Your task to perform on an android device: manage bookmarks in the chrome app Image 0: 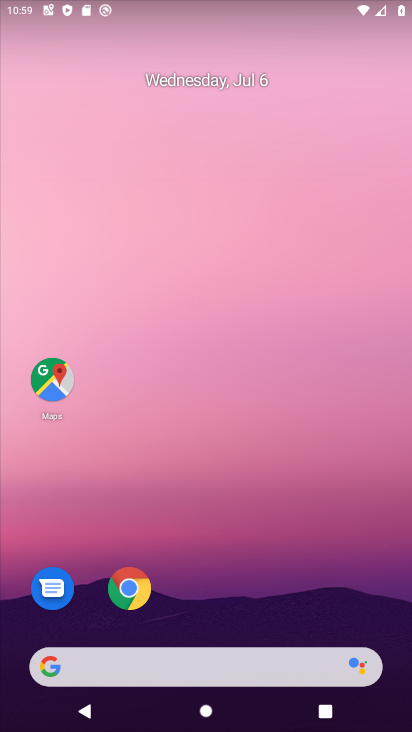
Step 0: drag from (264, 640) to (252, 351)
Your task to perform on an android device: manage bookmarks in the chrome app Image 1: 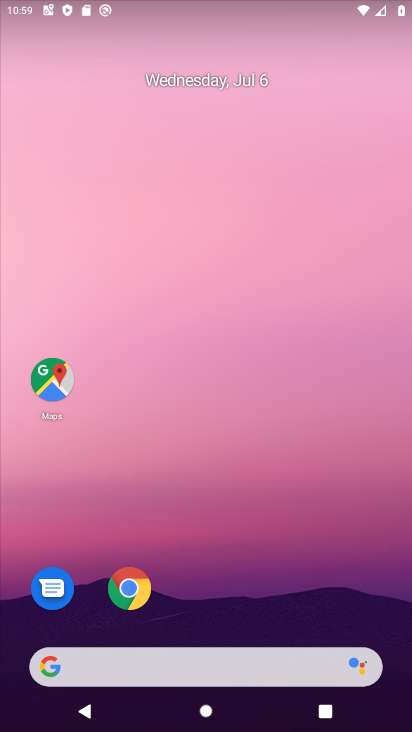
Step 1: drag from (208, 619) to (208, 359)
Your task to perform on an android device: manage bookmarks in the chrome app Image 2: 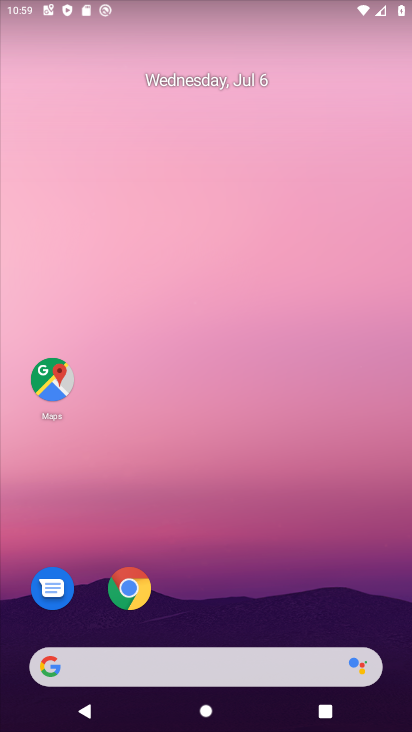
Step 2: drag from (203, 595) to (229, 187)
Your task to perform on an android device: manage bookmarks in the chrome app Image 3: 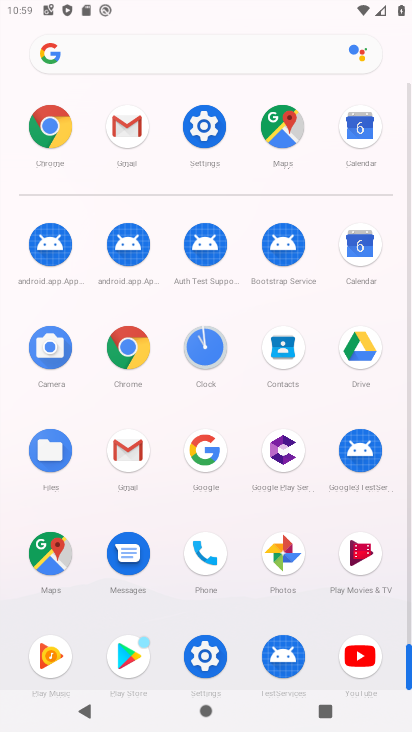
Step 3: click (122, 342)
Your task to perform on an android device: manage bookmarks in the chrome app Image 4: 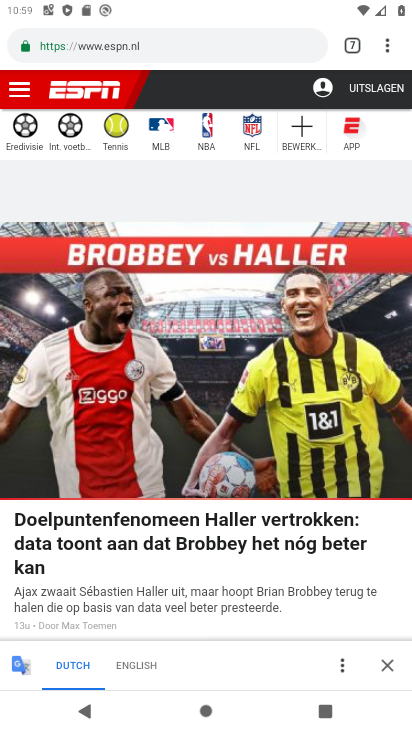
Step 4: click (396, 37)
Your task to perform on an android device: manage bookmarks in the chrome app Image 5: 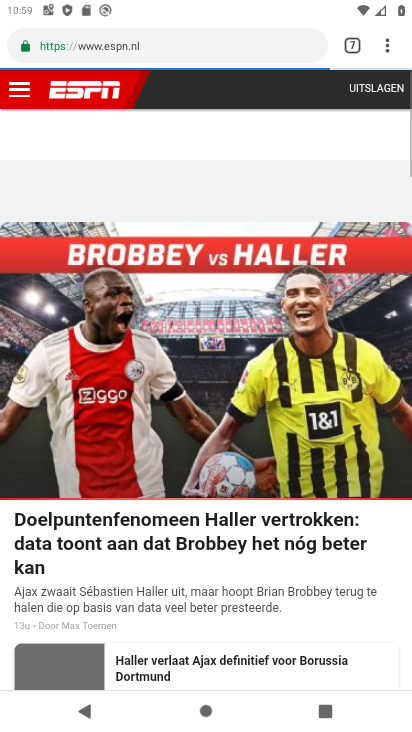
Step 5: click (382, 42)
Your task to perform on an android device: manage bookmarks in the chrome app Image 6: 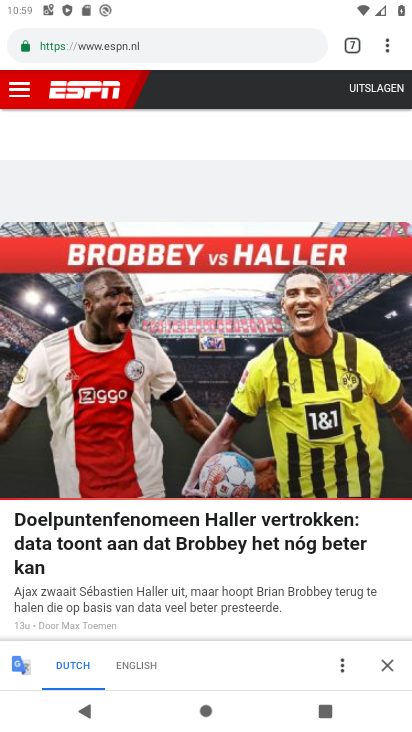
Step 6: click (384, 39)
Your task to perform on an android device: manage bookmarks in the chrome app Image 7: 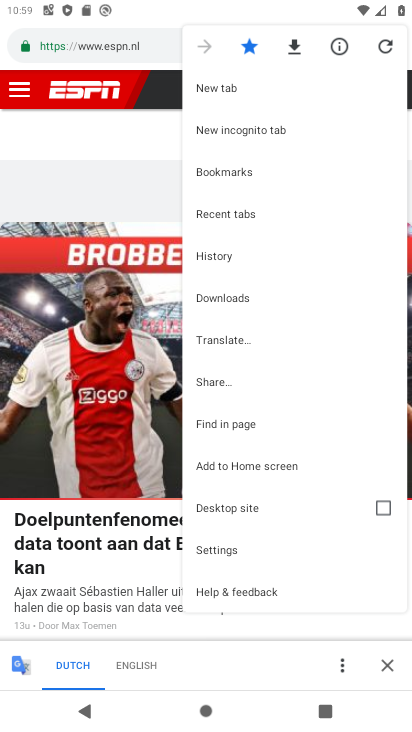
Step 7: click (252, 175)
Your task to perform on an android device: manage bookmarks in the chrome app Image 8: 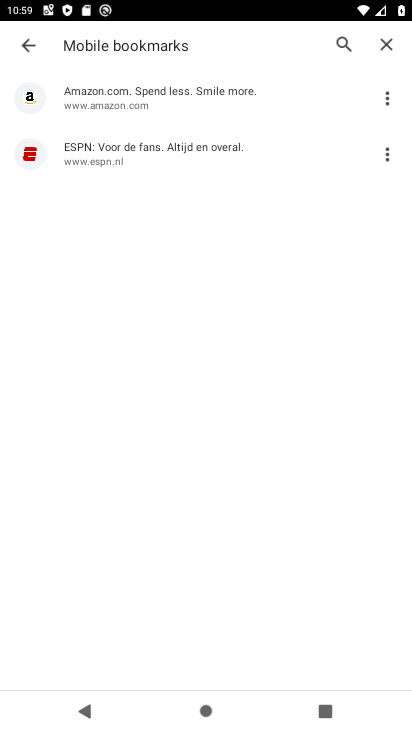
Step 8: click (108, 97)
Your task to perform on an android device: manage bookmarks in the chrome app Image 9: 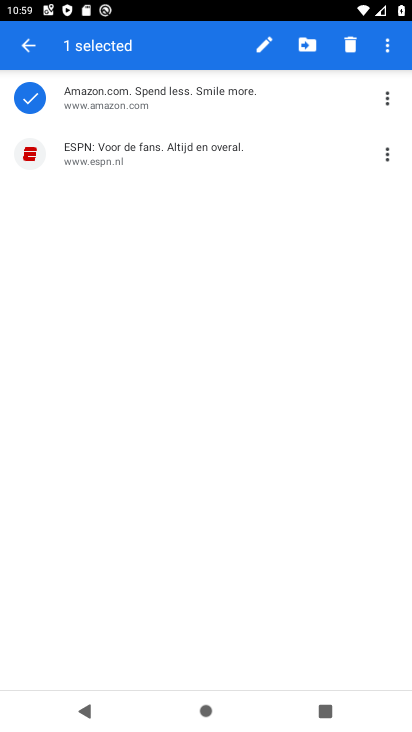
Step 9: click (102, 146)
Your task to perform on an android device: manage bookmarks in the chrome app Image 10: 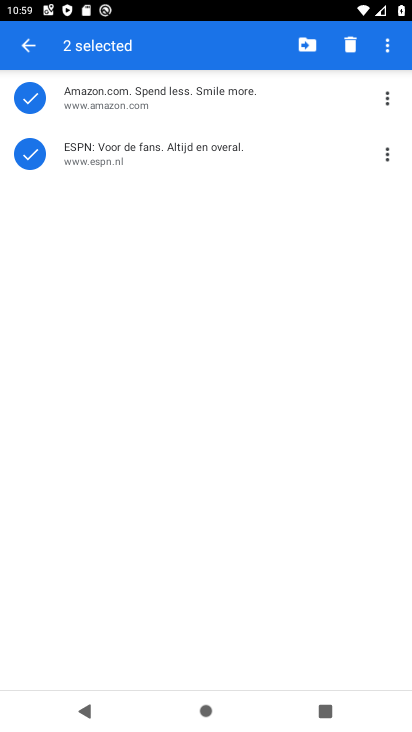
Step 10: click (313, 35)
Your task to perform on an android device: manage bookmarks in the chrome app Image 11: 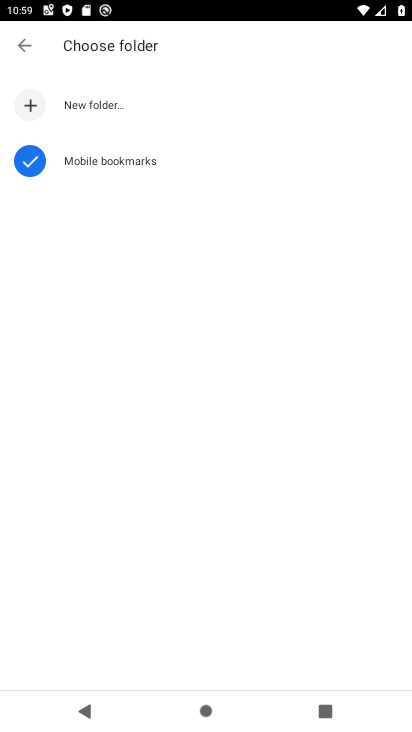
Step 11: click (143, 126)
Your task to perform on an android device: manage bookmarks in the chrome app Image 12: 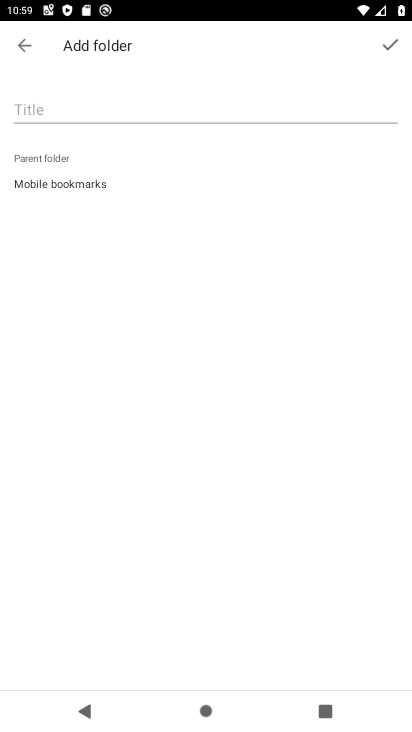
Step 12: click (143, 107)
Your task to perform on an android device: manage bookmarks in the chrome app Image 13: 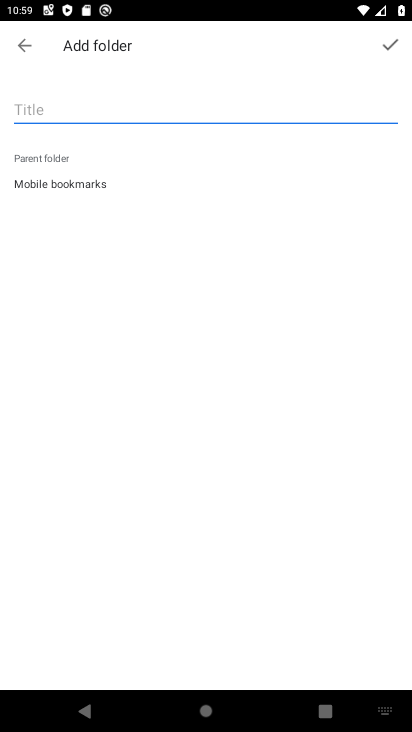
Step 13: type "dfghjk"
Your task to perform on an android device: manage bookmarks in the chrome app Image 14: 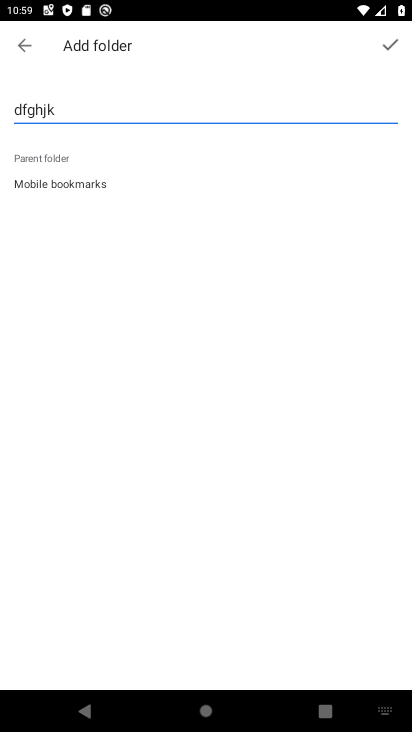
Step 14: click (399, 39)
Your task to perform on an android device: manage bookmarks in the chrome app Image 15: 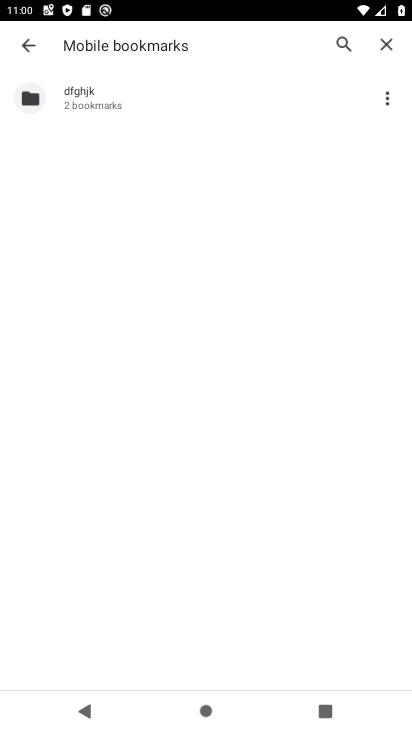
Step 15: task complete